Your task to perform on an android device: toggle translation in the chrome app Image 0: 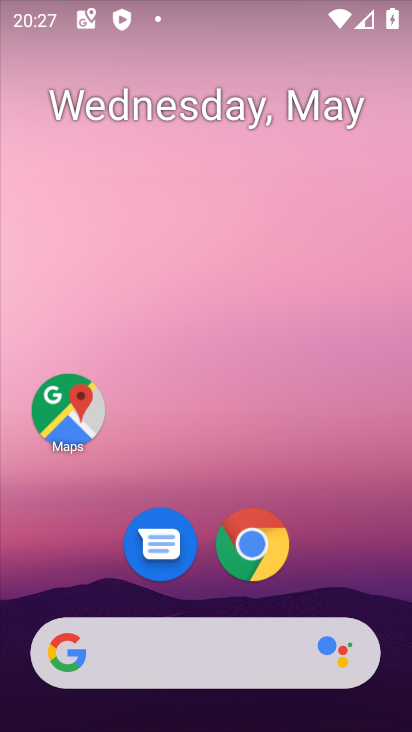
Step 0: click (253, 541)
Your task to perform on an android device: toggle translation in the chrome app Image 1: 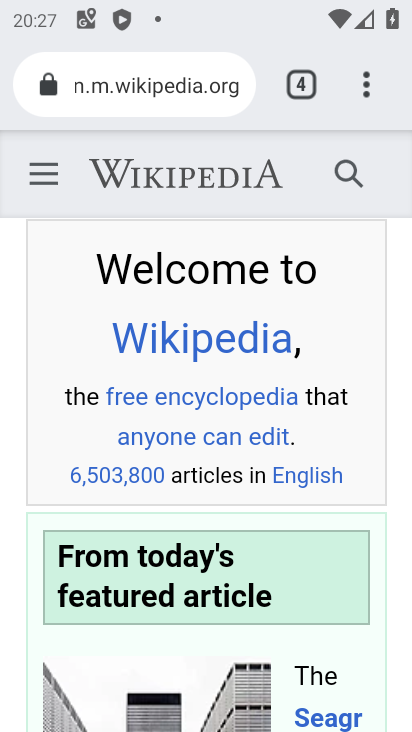
Step 1: click (378, 61)
Your task to perform on an android device: toggle translation in the chrome app Image 2: 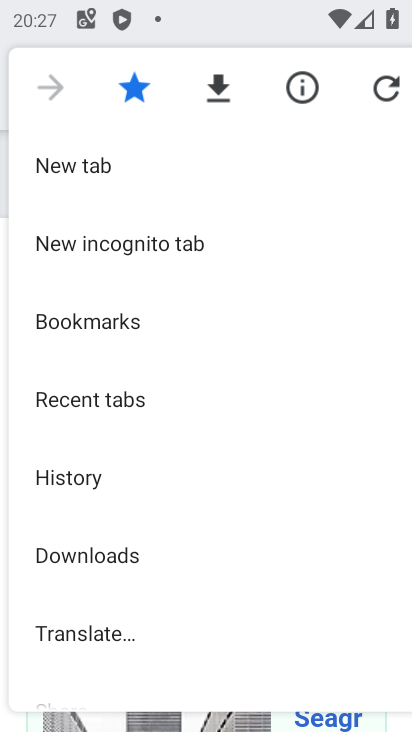
Step 2: drag from (115, 681) to (182, 210)
Your task to perform on an android device: toggle translation in the chrome app Image 3: 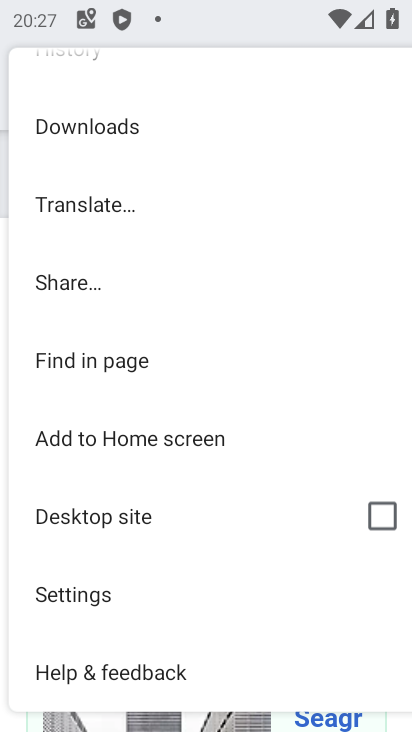
Step 3: click (56, 596)
Your task to perform on an android device: toggle translation in the chrome app Image 4: 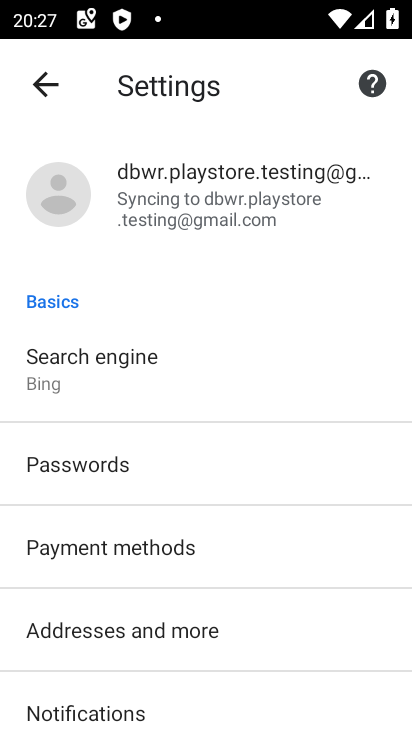
Step 4: drag from (94, 670) to (213, 90)
Your task to perform on an android device: toggle translation in the chrome app Image 5: 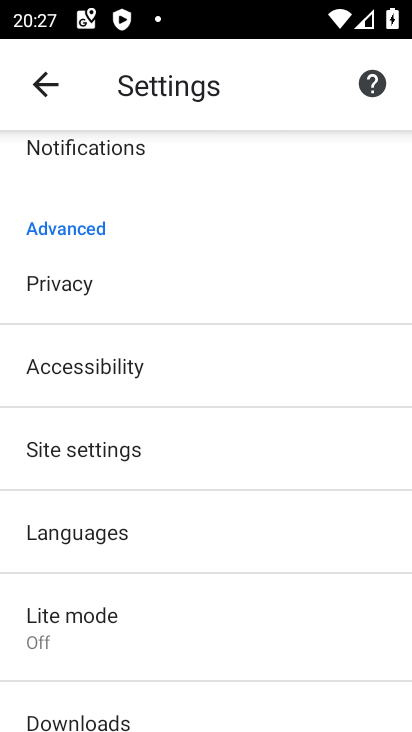
Step 5: click (145, 528)
Your task to perform on an android device: toggle translation in the chrome app Image 6: 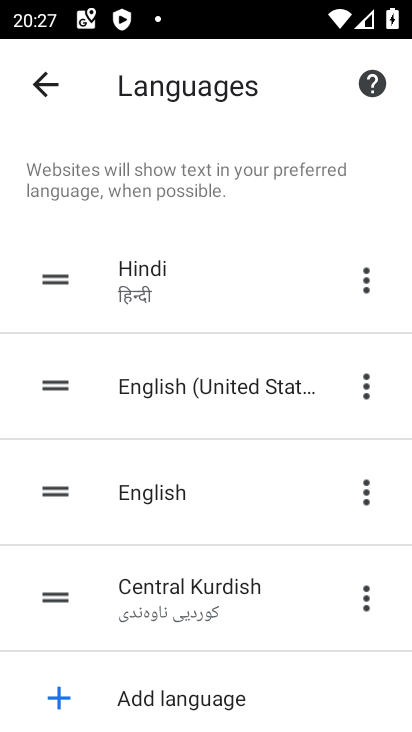
Step 6: drag from (185, 691) to (170, 213)
Your task to perform on an android device: toggle translation in the chrome app Image 7: 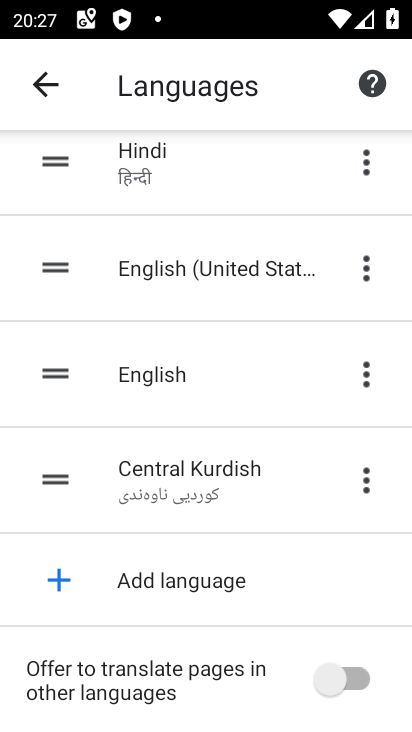
Step 7: click (355, 687)
Your task to perform on an android device: toggle translation in the chrome app Image 8: 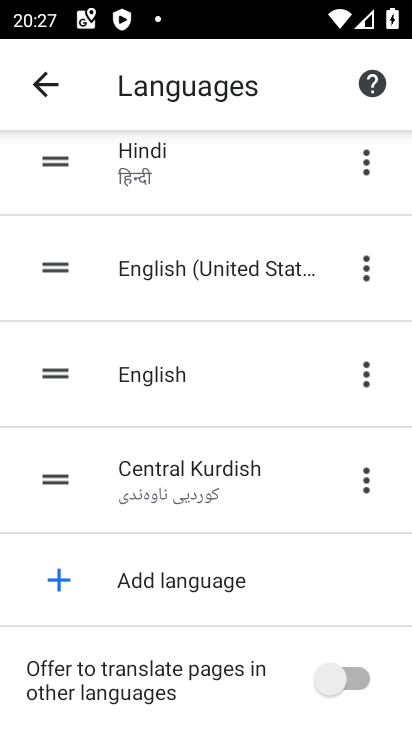
Step 8: click (355, 687)
Your task to perform on an android device: toggle translation in the chrome app Image 9: 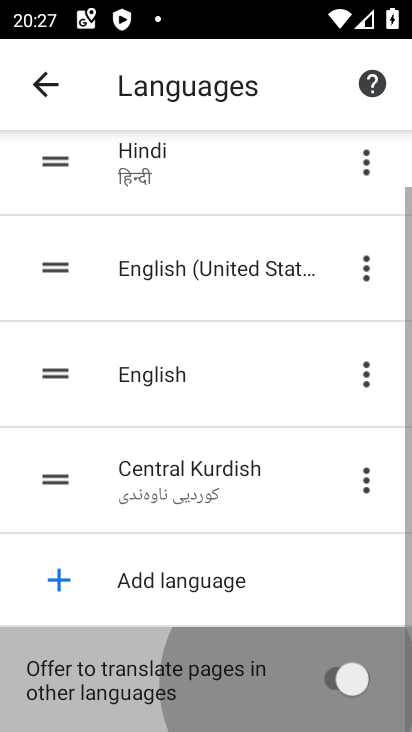
Step 9: click (355, 687)
Your task to perform on an android device: toggle translation in the chrome app Image 10: 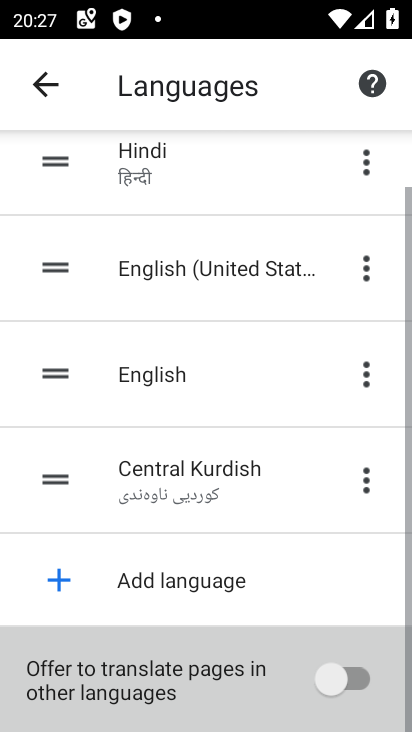
Step 10: click (355, 687)
Your task to perform on an android device: toggle translation in the chrome app Image 11: 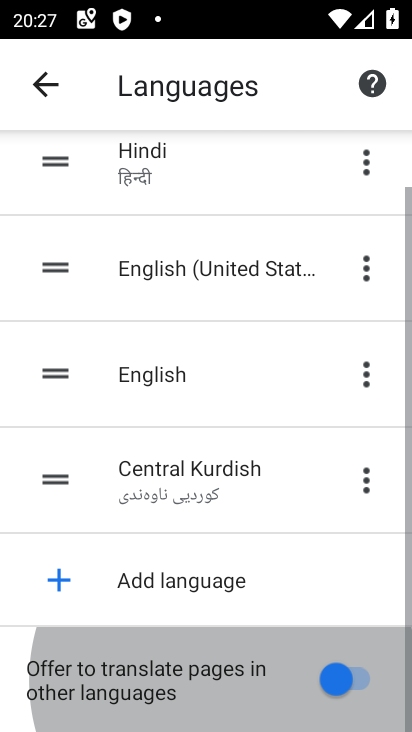
Step 11: click (355, 687)
Your task to perform on an android device: toggle translation in the chrome app Image 12: 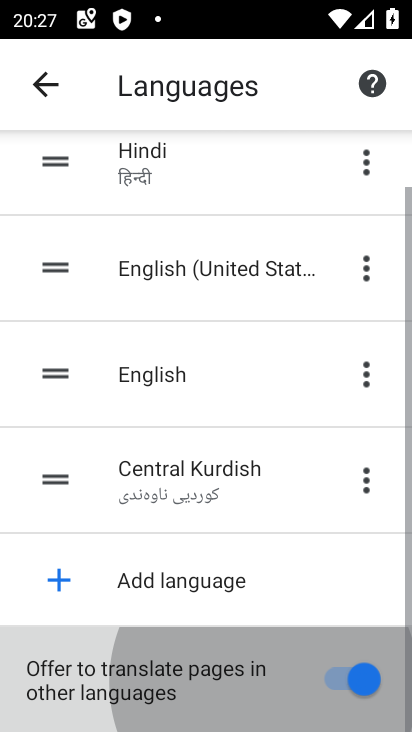
Step 12: click (355, 687)
Your task to perform on an android device: toggle translation in the chrome app Image 13: 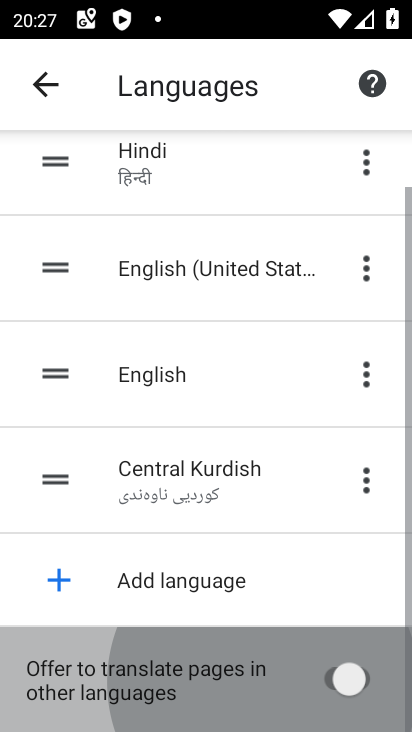
Step 13: click (355, 687)
Your task to perform on an android device: toggle translation in the chrome app Image 14: 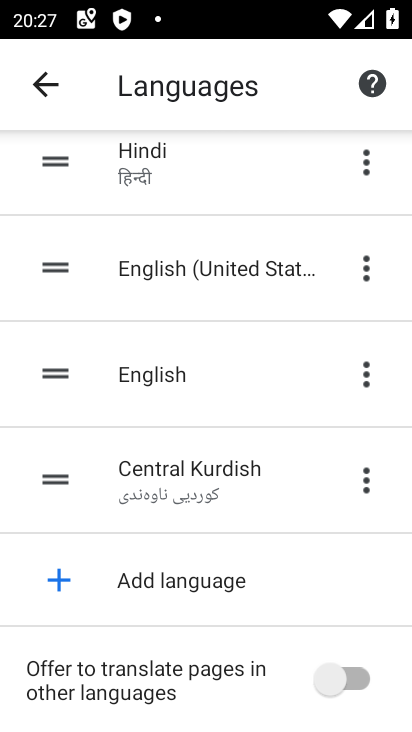
Step 14: task complete